Your task to perform on an android device: see sites visited before in the chrome app Image 0: 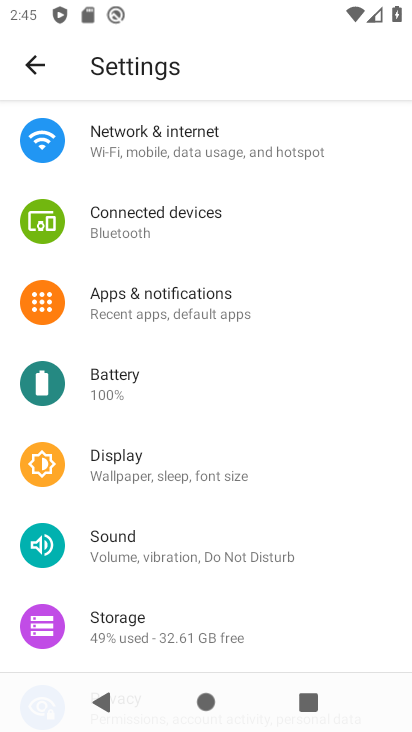
Step 0: press home button
Your task to perform on an android device: see sites visited before in the chrome app Image 1: 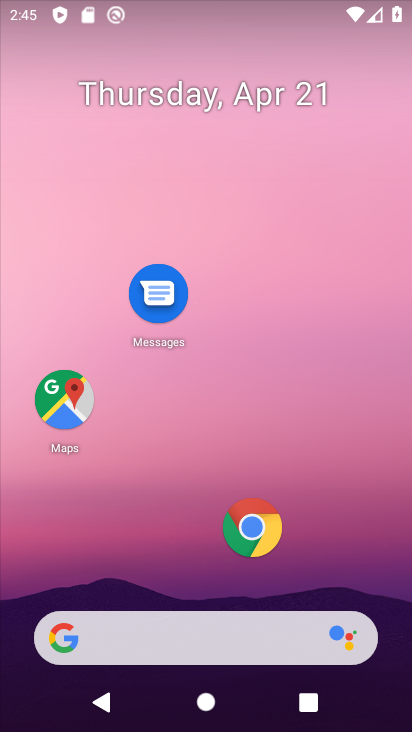
Step 1: click (255, 539)
Your task to perform on an android device: see sites visited before in the chrome app Image 2: 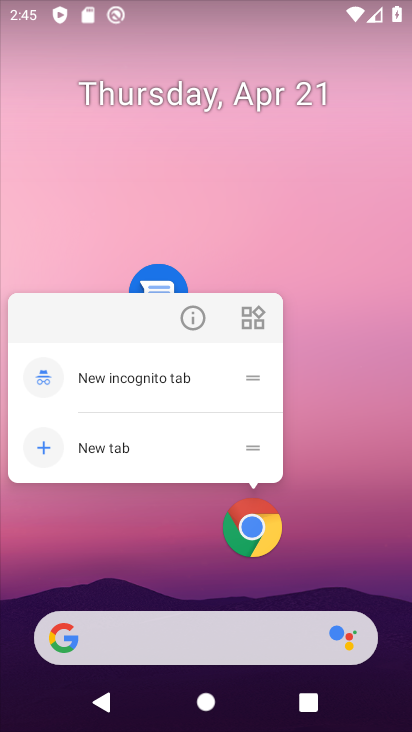
Step 2: click (255, 539)
Your task to perform on an android device: see sites visited before in the chrome app Image 3: 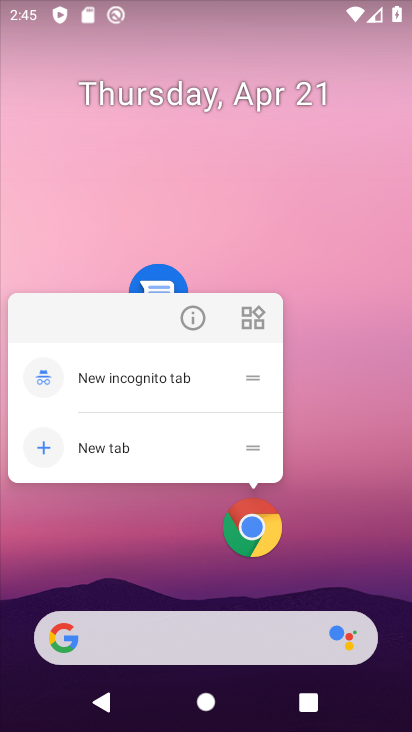
Step 3: click (255, 539)
Your task to perform on an android device: see sites visited before in the chrome app Image 4: 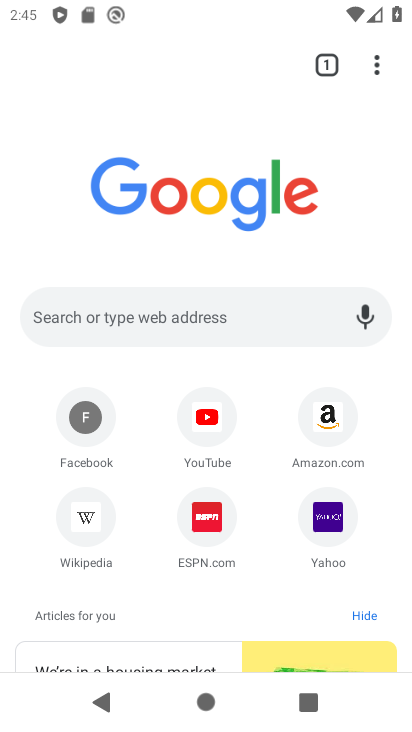
Step 4: click (377, 65)
Your task to perform on an android device: see sites visited before in the chrome app Image 5: 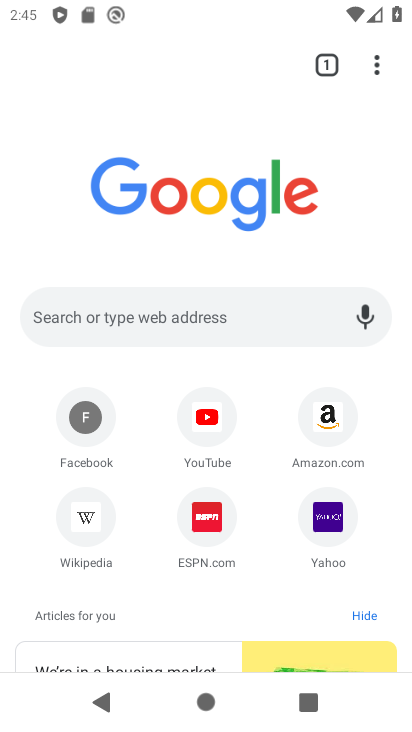
Step 5: click (377, 65)
Your task to perform on an android device: see sites visited before in the chrome app Image 6: 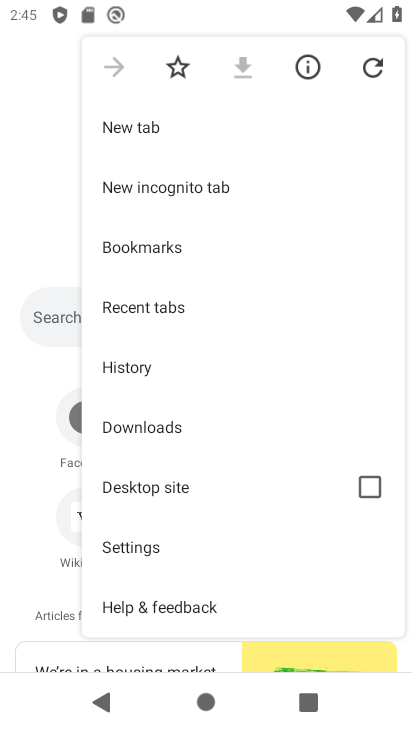
Step 6: click (143, 545)
Your task to perform on an android device: see sites visited before in the chrome app Image 7: 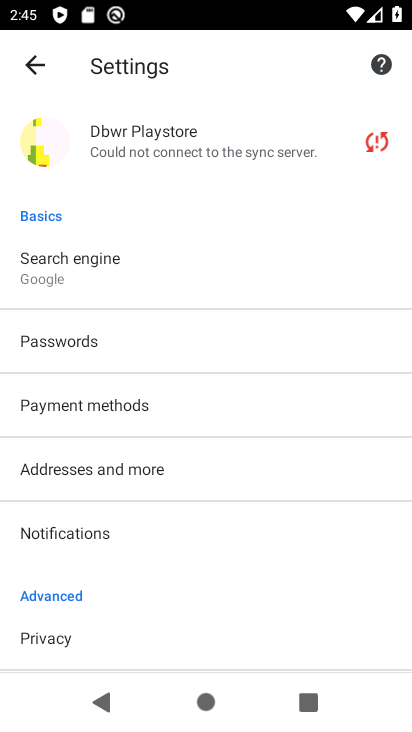
Step 7: drag from (82, 662) to (176, 358)
Your task to perform on an android device: see sites visited before in the chrome app Image 8: 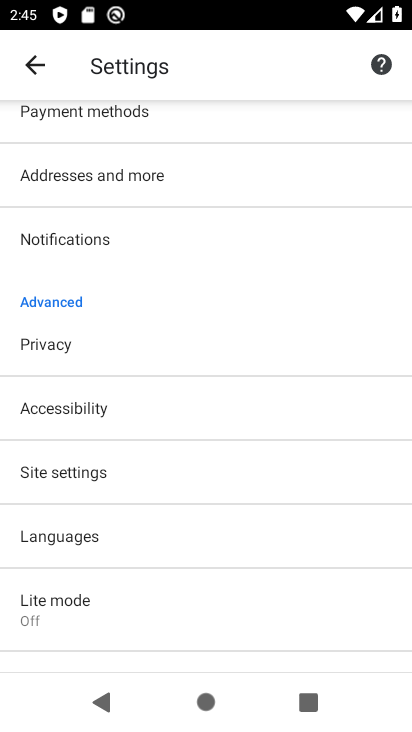
Step 8: click (78, 470)
Your task to perform on an android device: see sites visited before in the chrome app Image 9: 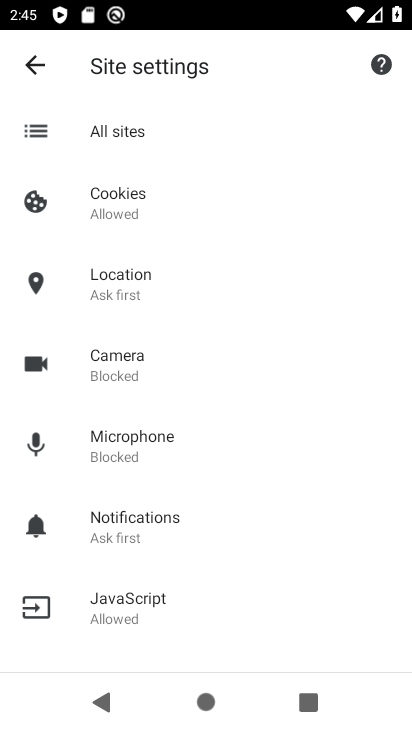
Step 9: task complete